Your task to perform on an android device: Open the map Image 0: 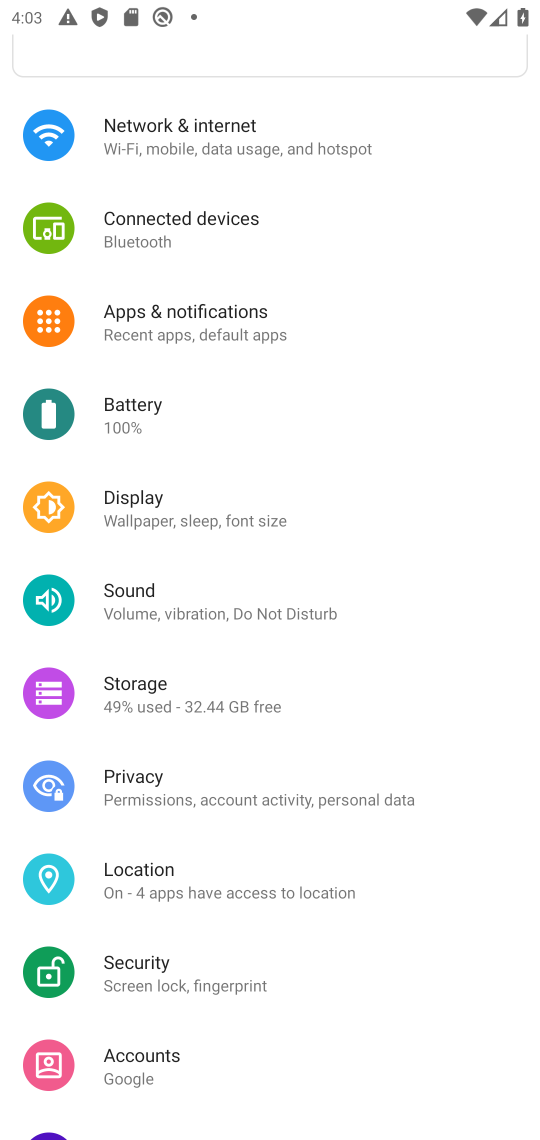
Step 0: press home button
Your task to perform on an android device: Open the map Image 1: 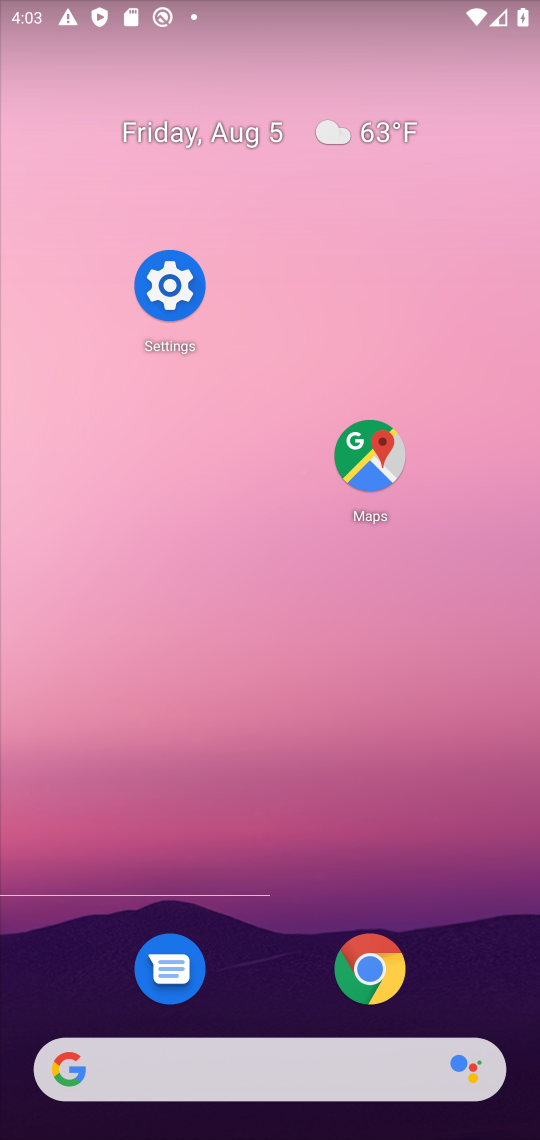
Step 1: click (387, 454)
Your task to perform on an android device: Open the map Image 2: 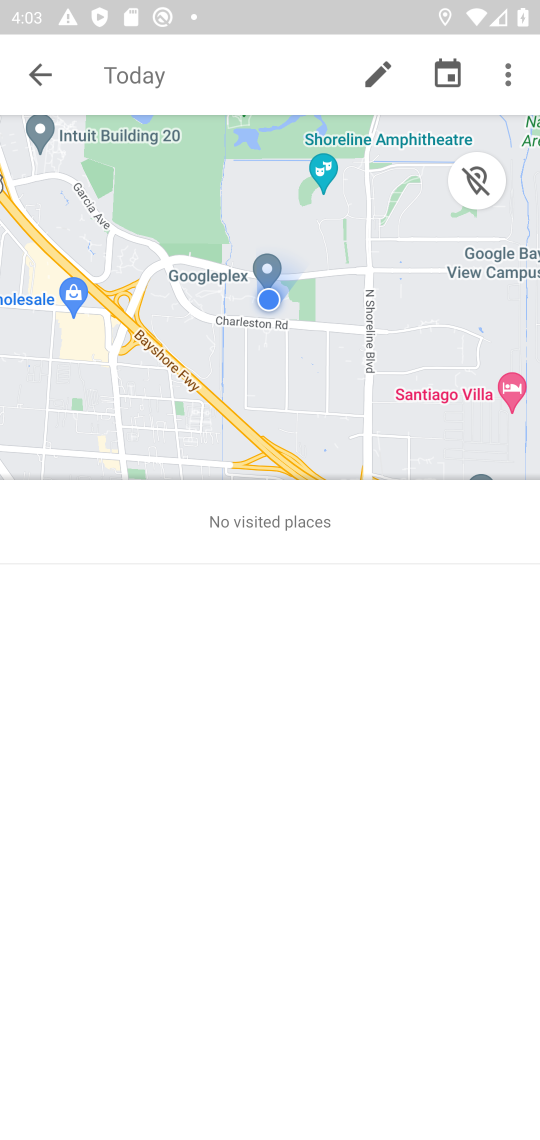
Step 2: task complete